Your task to perform on an android device: Search for Mexican restaurants on Maps Image 0: 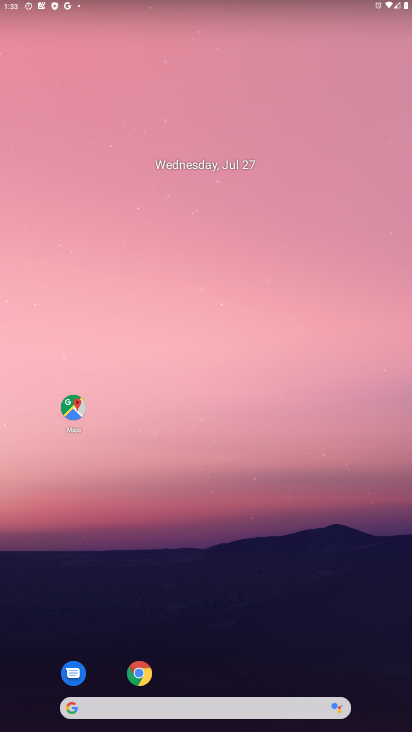
Step 0: click (76, 416)
Your task to perform on an android device: Search for Mexican restaurants on Maps Image 1: 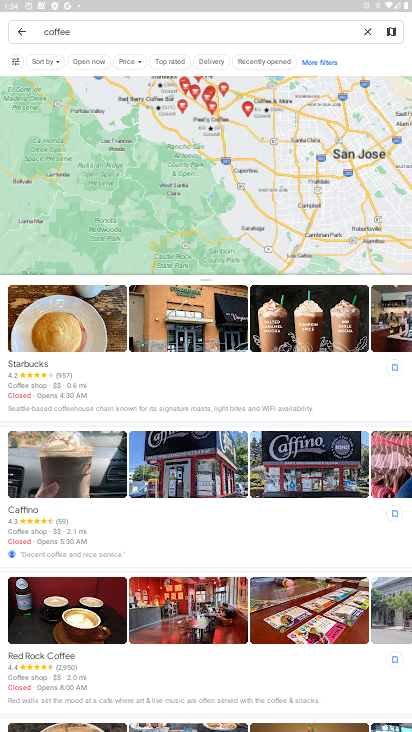
Step 1: click (365, 36)
Your task to perform on an android device: Search for Mexican restaurants on Maps Image 2: 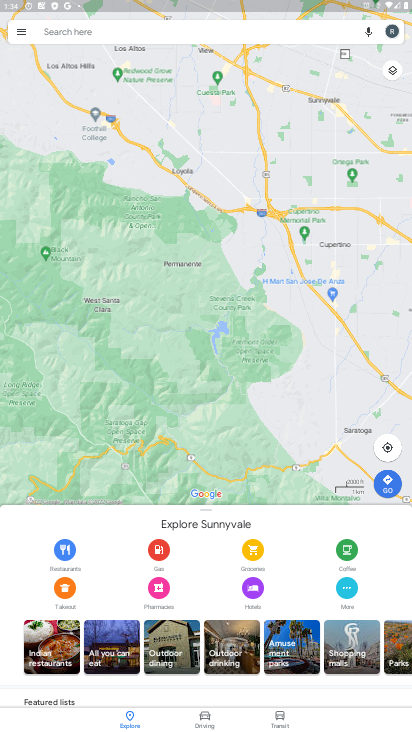
Step 2: click (82, 31)
Your task to perform on an android device: Search for Mexican restaurants on Maps Image 3: 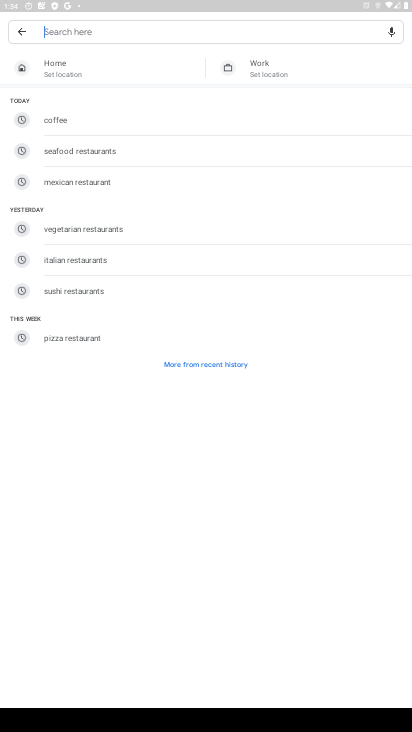
Step 3: click (81, 191)
Your task to perform on an android device: Search for Mexican restaurants on Maps Image 4: 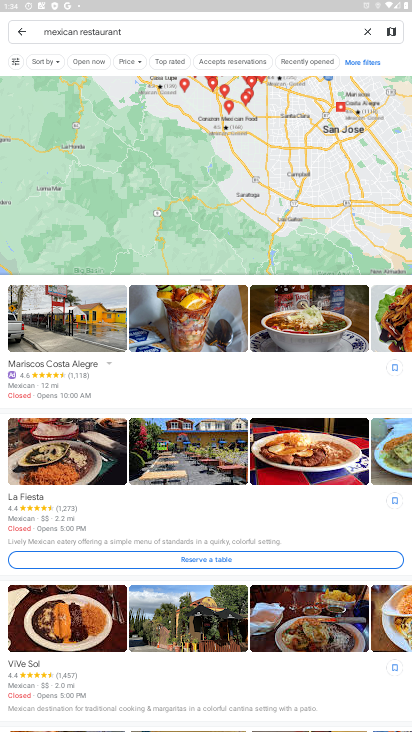
Step 4: task complete